Your task to perform on an android device: Go to Android settings Image 0: 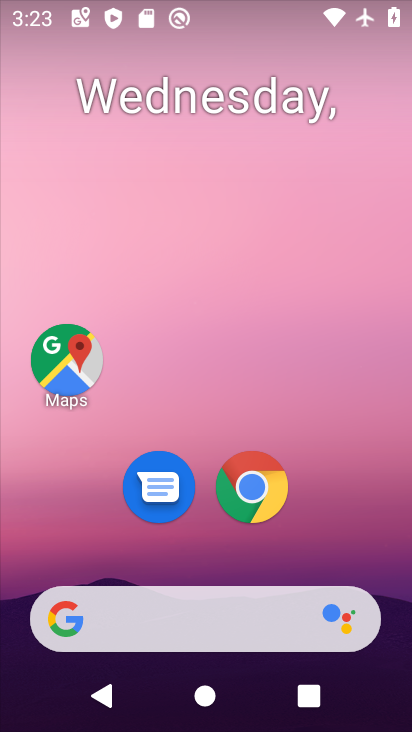
Step 0: drag from (337, 461) to (333, 143)
Your task to perform on an android device: Go to Android settings Image 1: 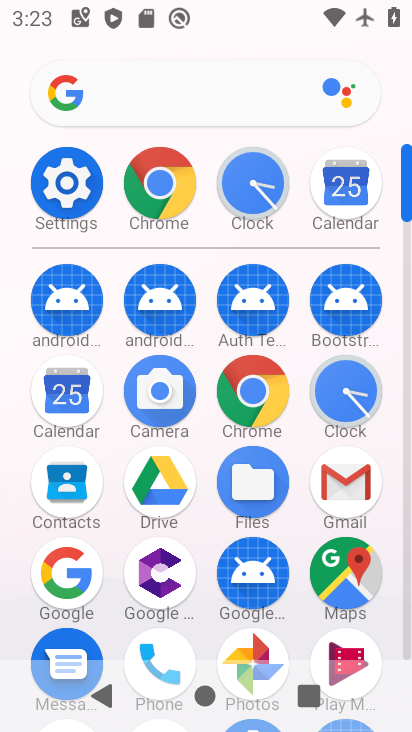
Step 1: click (63, 203)
Your task to perform on an android device: Go to Android settings Image 2: 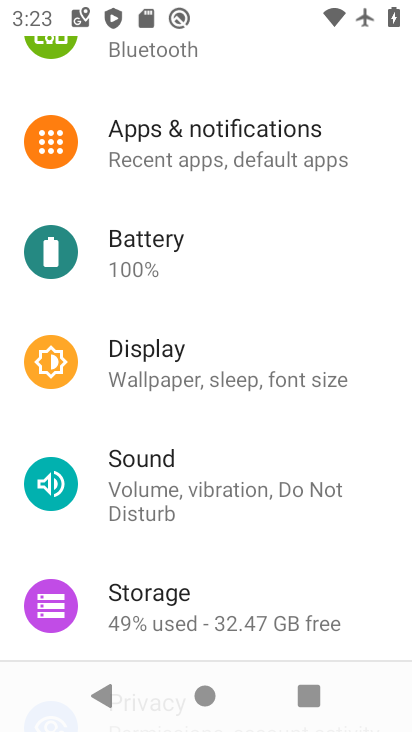
Step 2: task complete